Your task to perform on an android device: Go to accessibility settings Image 0: 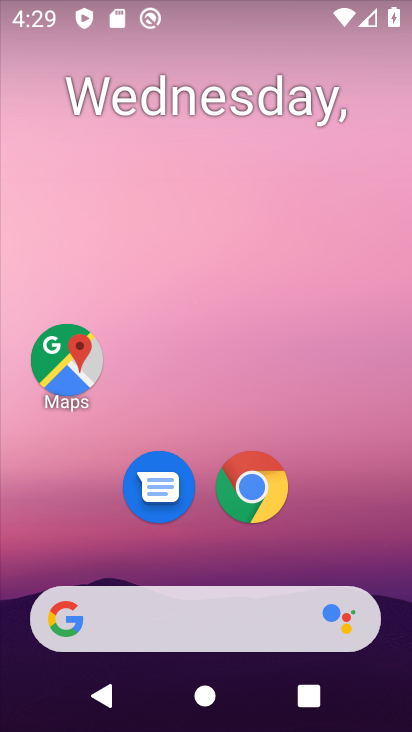
Step 0: press home button
Your task to perform on an android device: Go to accessibility settings Image 1: 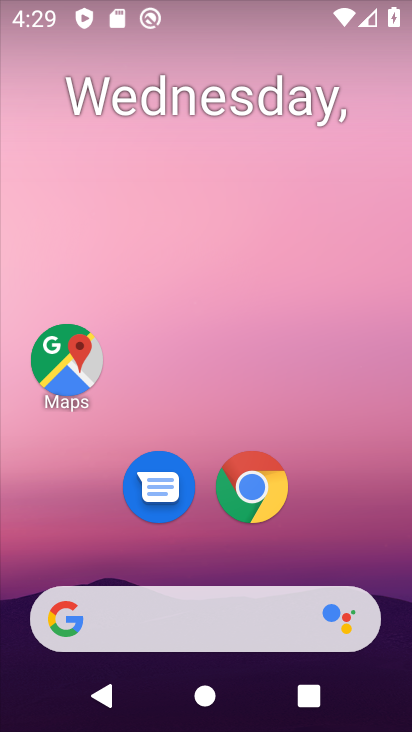
Step 1: drag from (199, 542) to (214, 32)
Your task to perform on an android device: Go to accessibility settings Image 2: 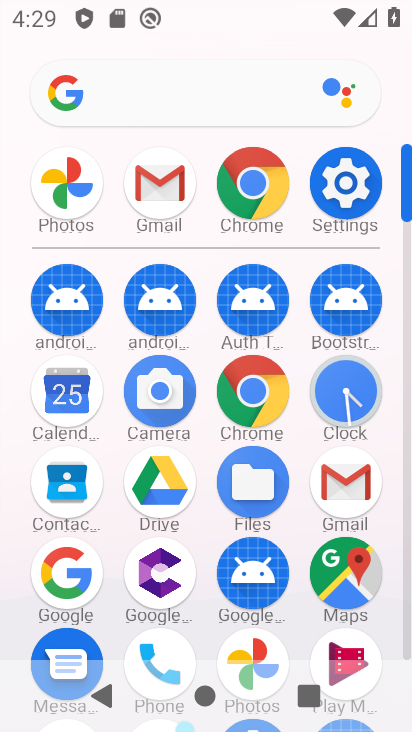
Step 2: click (352, 185)
Your task to perform on an android device: Go to accessibility settings Image 3: 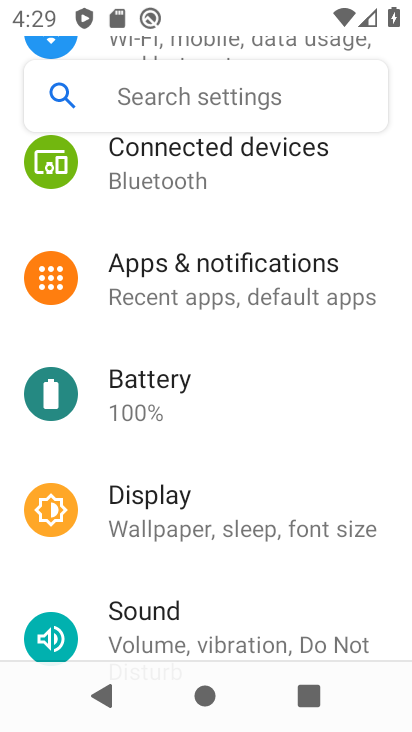
Step 3: drag from (225, 597) to (264, 62)
Your task to perform on an android device: Go to accessibility settings Image 4: 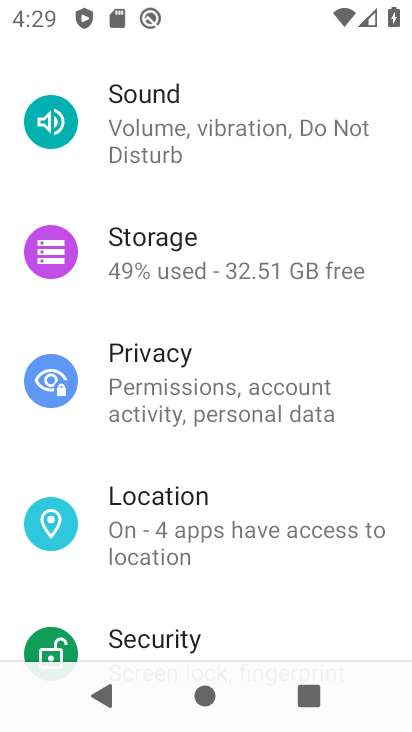
Step 4: drag from (214, 622) to (252, 92)
Your task to perform on an android device: Go to accessibility settings Image 5: 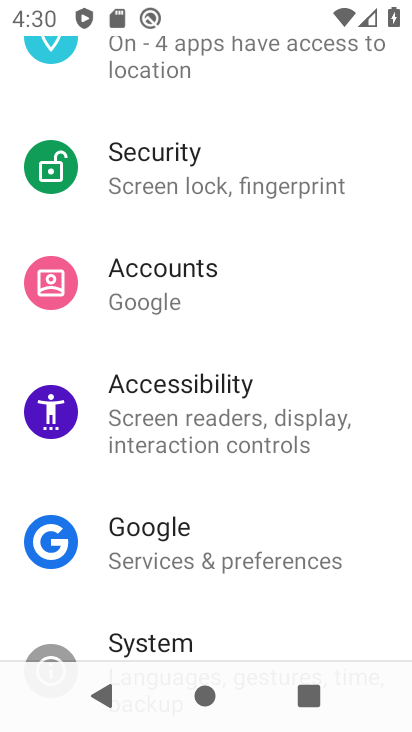
Step 5: click (216, 397)
Your task to perform on an android device: Go to accessibility settings Image 6: 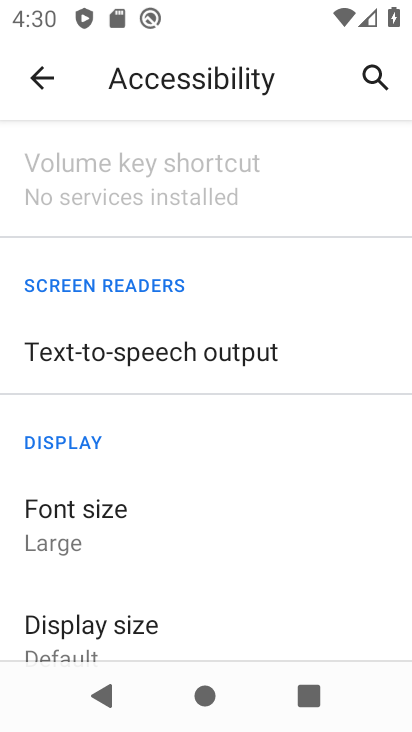
Step 6: task complete